Your task to perform on an android device: Show me recent news Image 0: 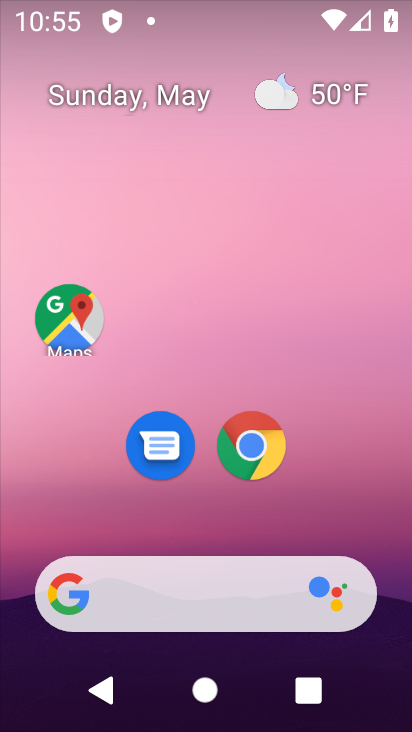
Step 0: click (210, 592)
Your task to perform on an android device: Show me recent news Image 1: 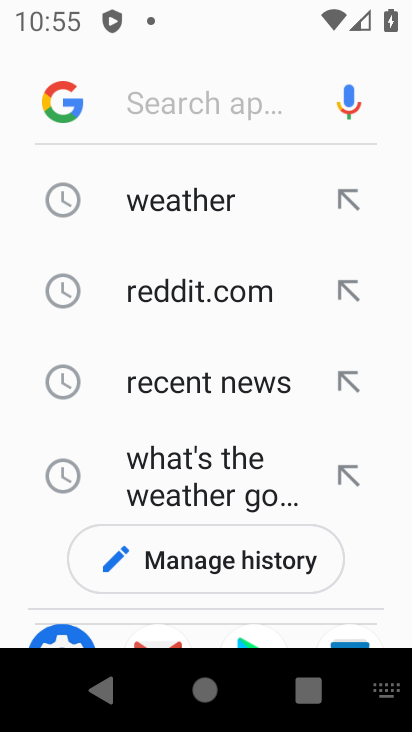
Step 1: click (231, 392)
Your task to perform on an android device: Show me recent news Image 2: 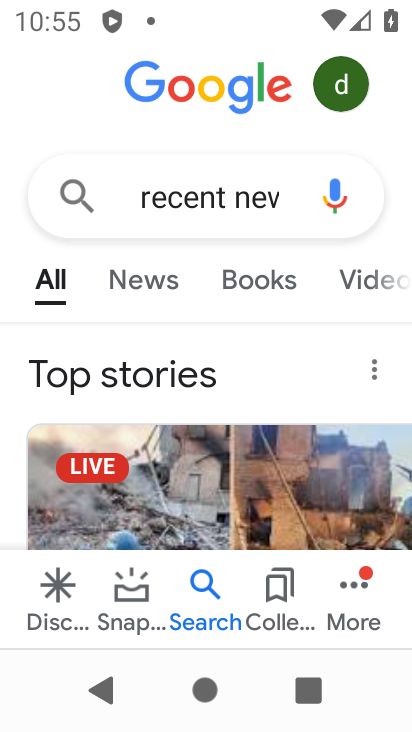
Step 2: task complete